Your task to perform on an android device: check the backup settings in the google photos Image 0: 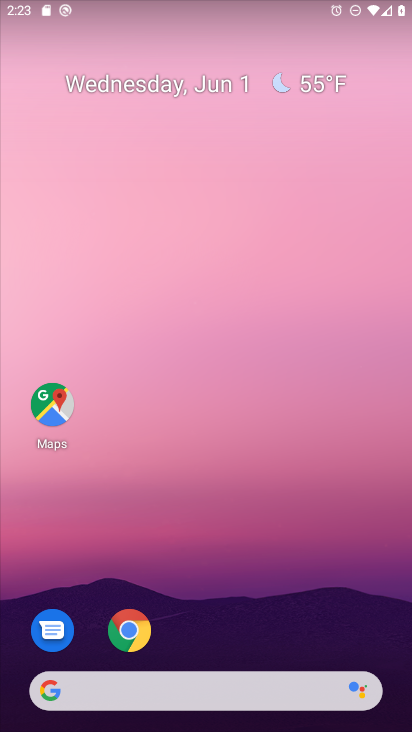
Step 0: drag from (338, 544) to (372, 124)
Your task to perform on an android device: check the backup settings in the google photos Image 1: 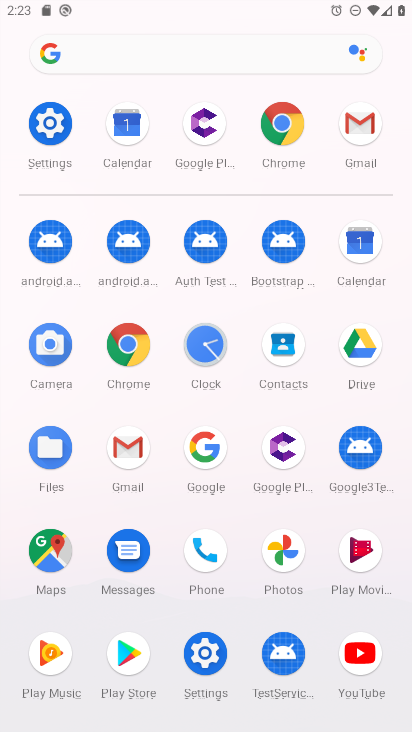
Step 1: click (274, 546)
Your task to perform on an android device: check the backup settings in the google photos Image 2: 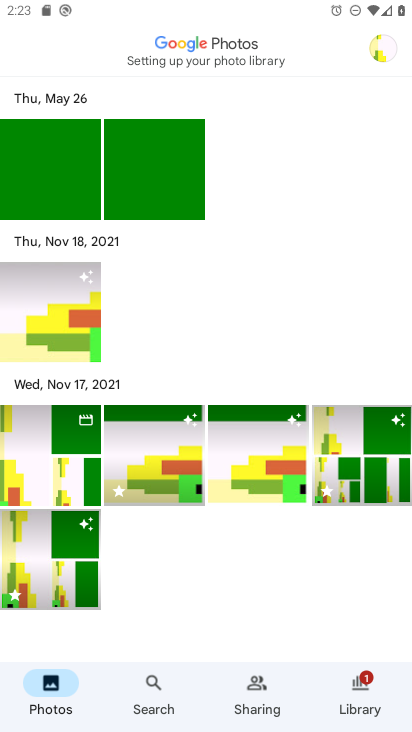
Step 2: click (379, 56)
Your task to perform on an android device: check the backup settings in the google photos Image 3: 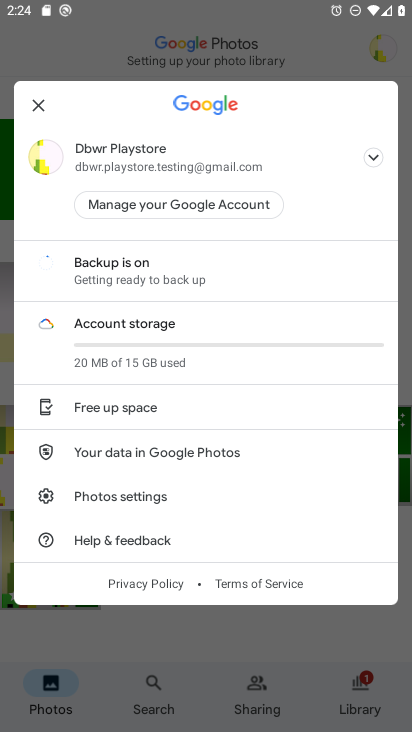
Step 3: click (181, 495)
Your task to perform on an android device: check the backup settings in the google photos Image 4: 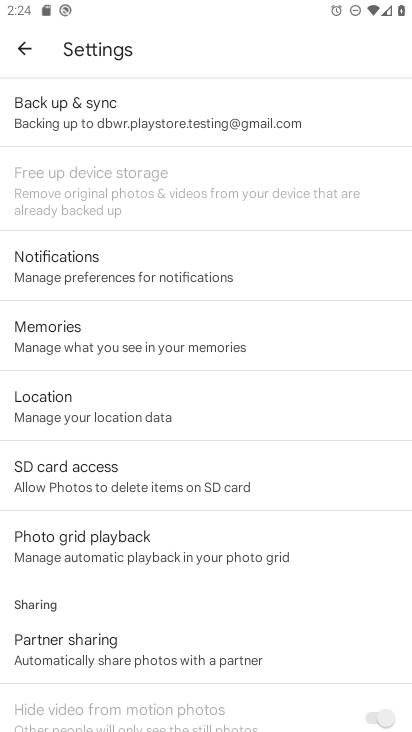
Step 4: click (142, 105)
Your task to perform on an android device: check the backup settings in the google photos Image 5: 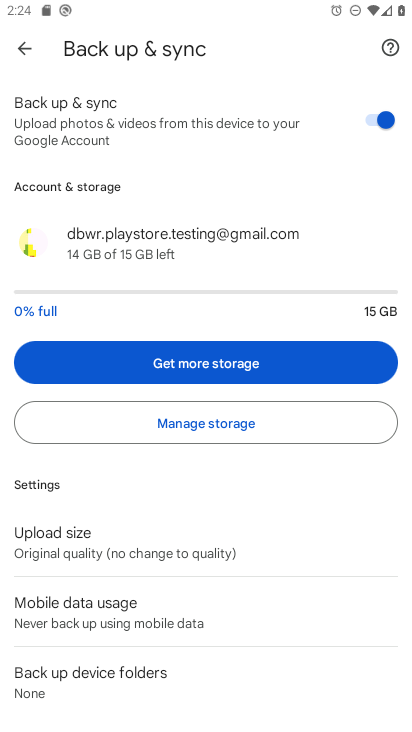
Step 5: task complete